Your task to perform on an android device: remove spam from my inbox in the gmail app Image 0: 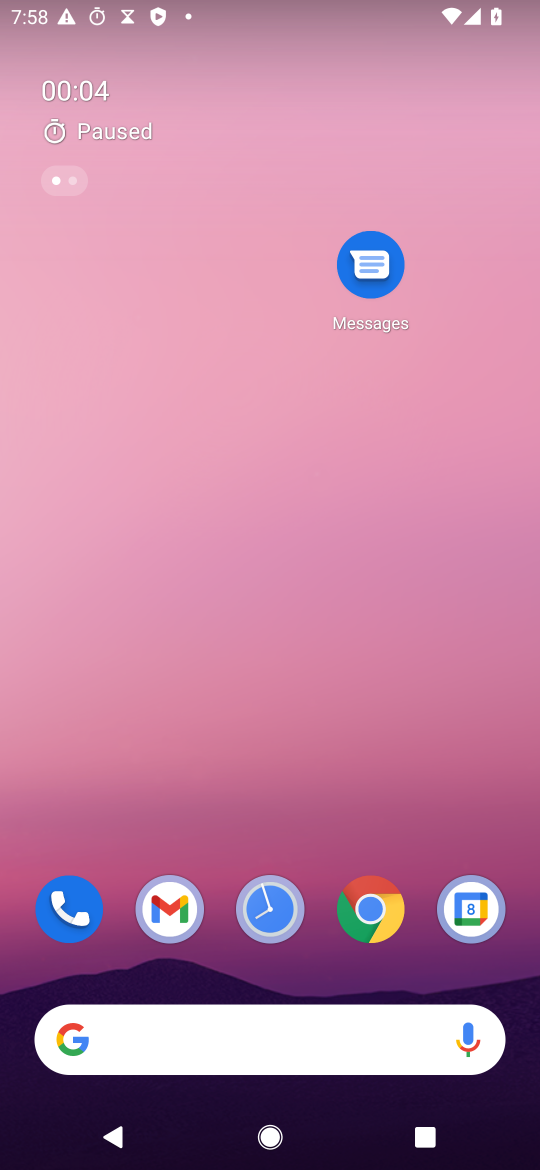
Step 0: click (170, 906)
Your task to perform on an android device: remove spam from my inbox in the gmail app Image 1: 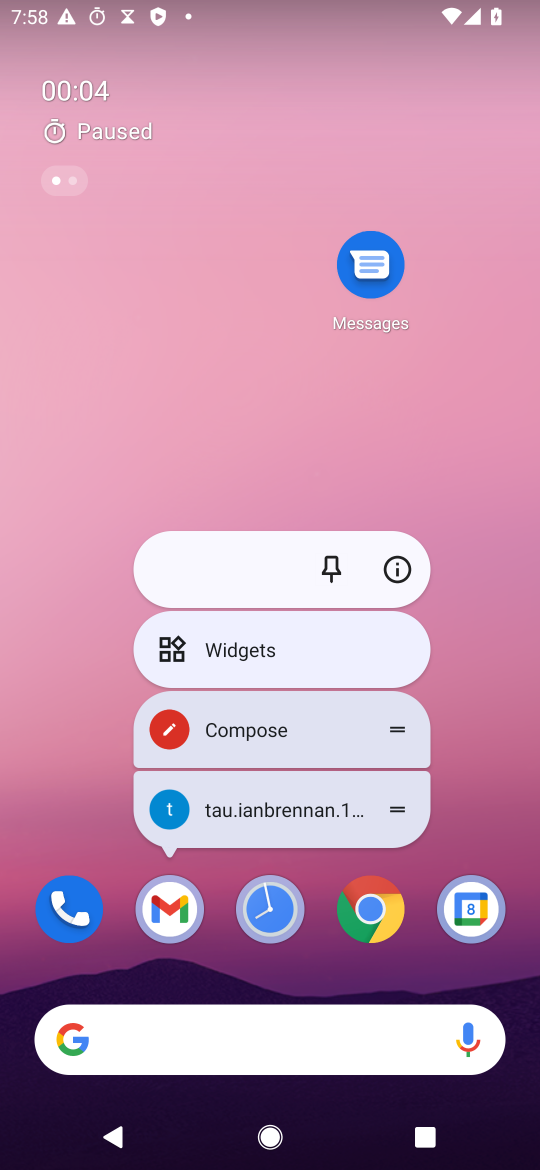
Step 1: click (170, 908)
Your task to perform on an android device: remove spam from my inbox in the gmail app Image 2: 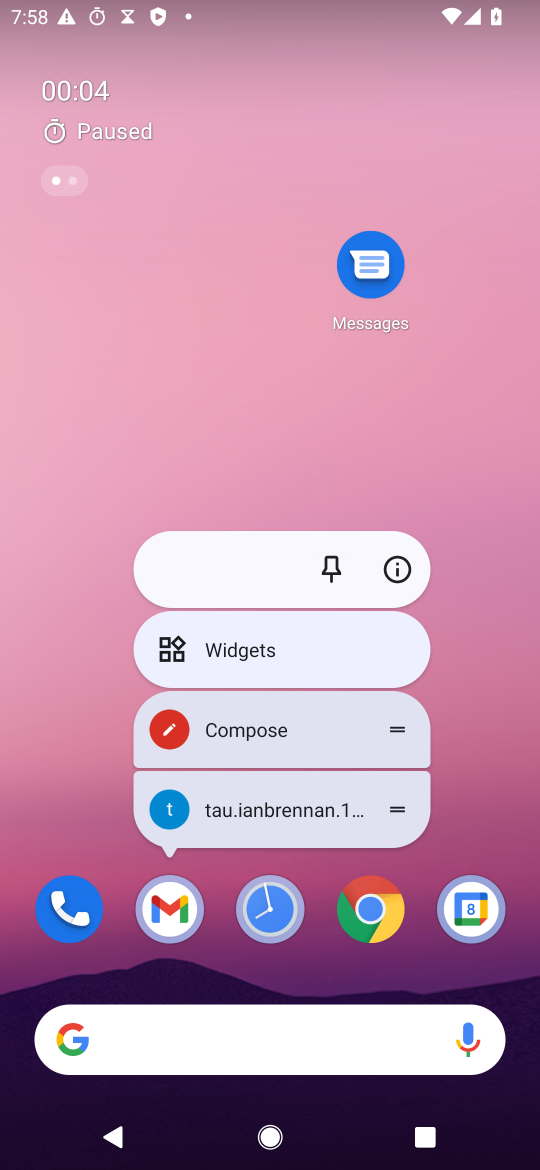
Step 2: click (170, 910)
Your task to perform on an android device: remove spam from my inbox in the gmail app Image 3: 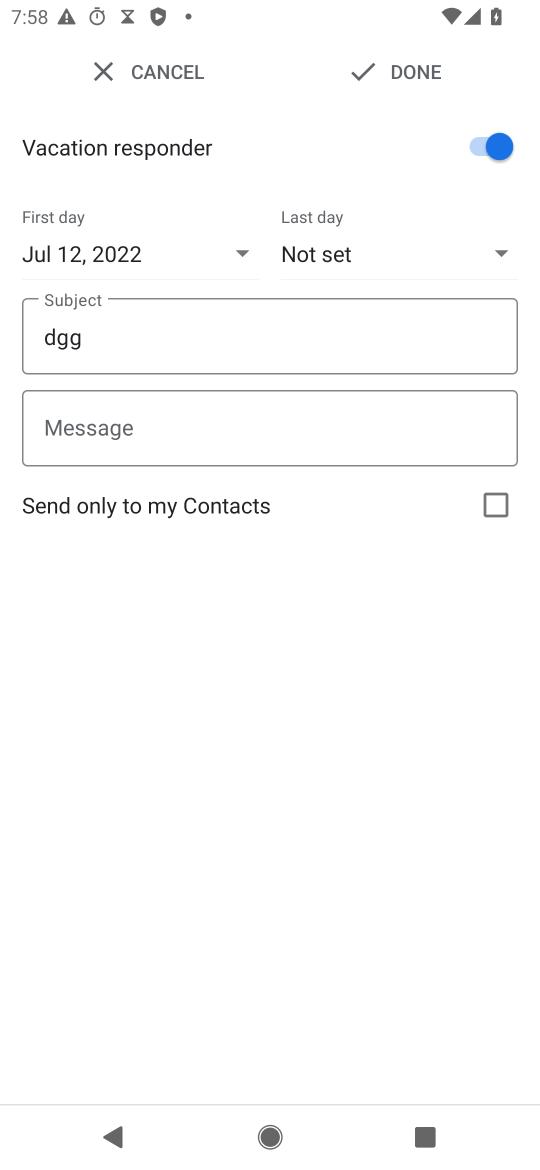
Step 3: press back button
Your task to perform on an android device: remove spam from my inbox in the gmail app Image 4: 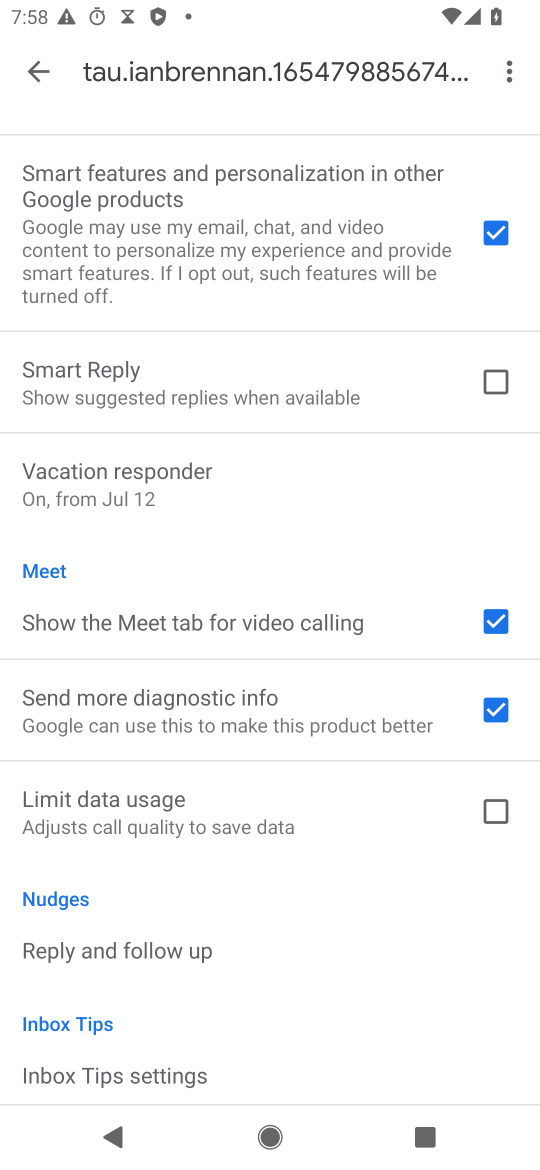
Step 4: click (42, 66)
Your task to perform on an android device: remove spam from my inbox in the gmail app Image 5: 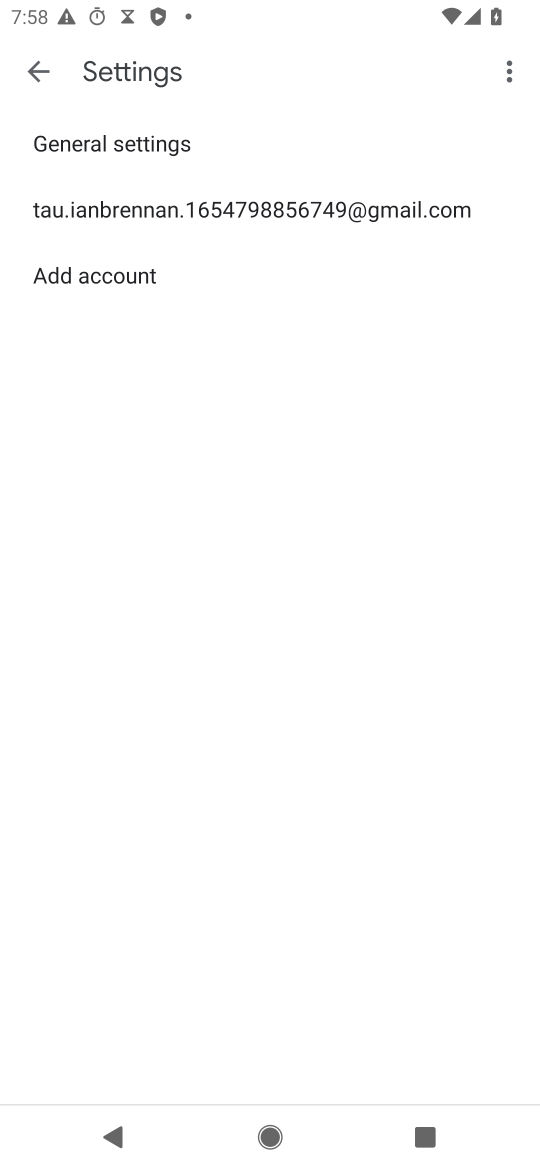
Step 5: click (42, 66)
Your task to perform on an android device: remove spam from my inbox in the gmail app Image 6: 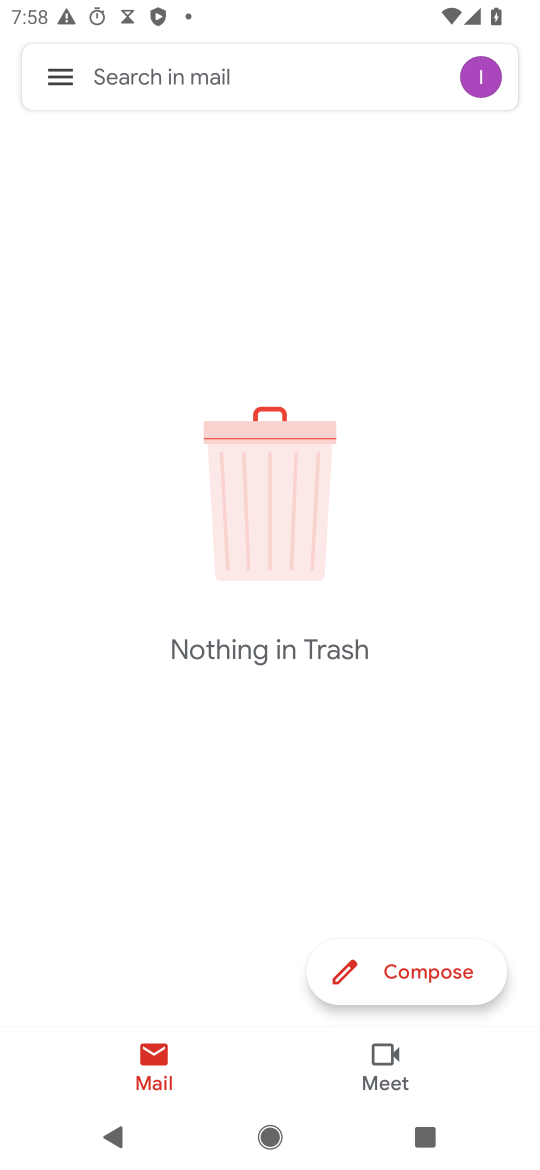
Step 6: click (61, 67)
Your task to perform on an android device: remove spam from my inbox in the gmail app Image 7: 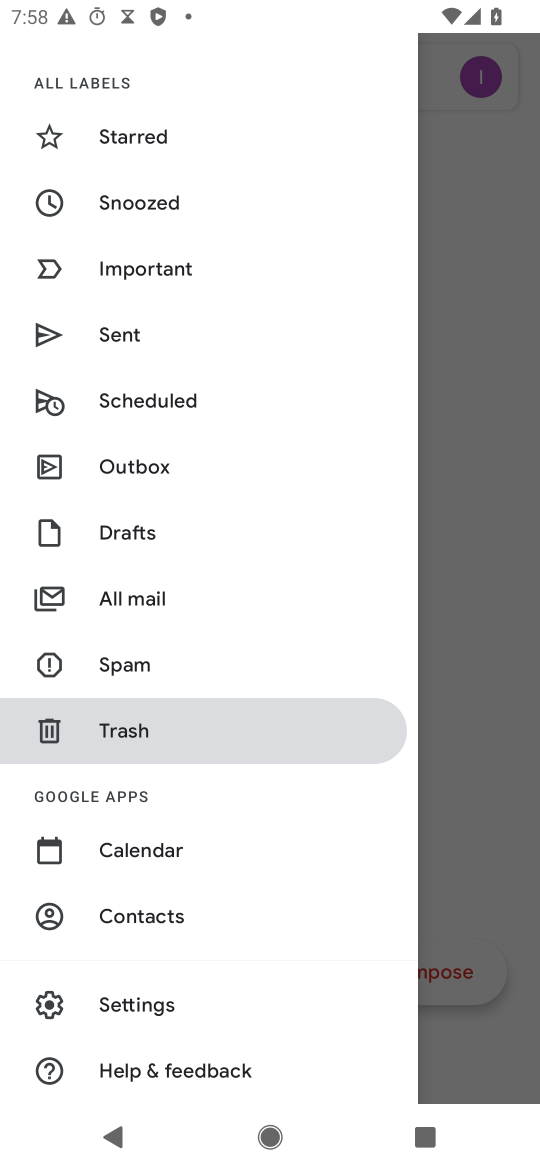
Step 7: click (175, 663)
Your task to perform on an android device: remove spam from my inbox in the gmail app Image 8: 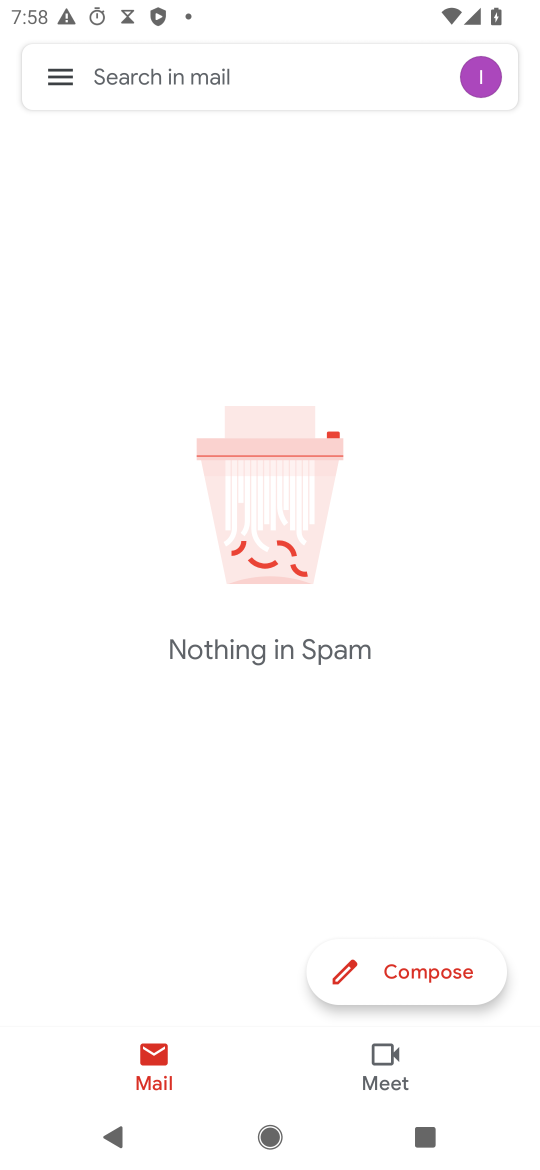
Step 8: task complete